Your task to perform on an android device: delete the emails in spam in the gmail app Image 0: 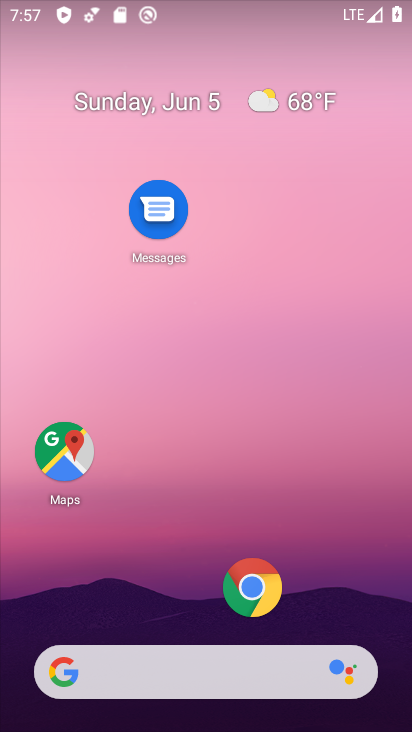
Step 0: press home button
Your task to perform on an android device: delete the emails in spam in the gmail app Image 1: 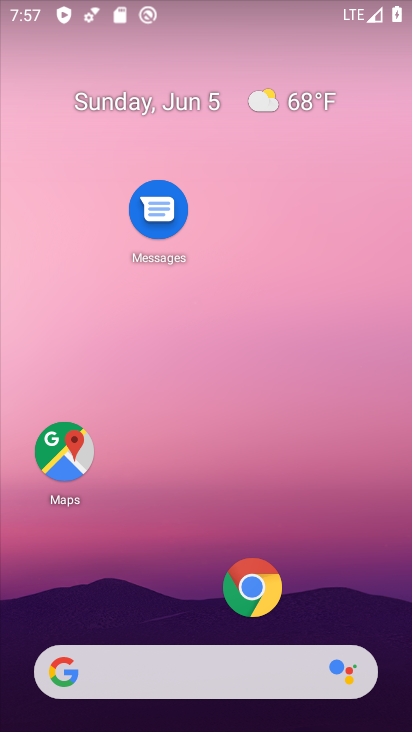
Step 1: drag from (203, 623) to (239, 42)
Your task to perform on an android device: delete the emails in spam in the gmail app Image 2: 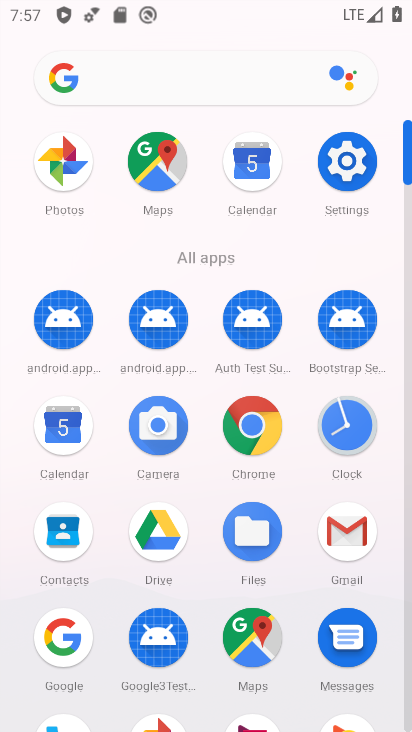
Step 2: click (345, 528)
Your task to perform on an android device: delete the emails in spam in the gmail app Image 3: 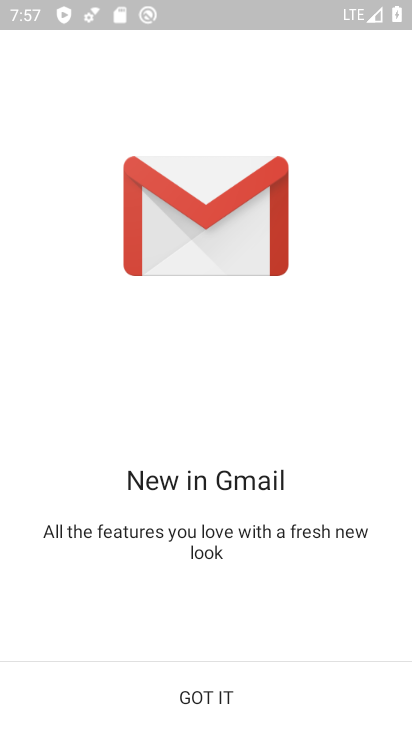
Step 3: click (211, 695)
Your task to perform on an android device: delete the emails in spam in the gmail app Image 4: 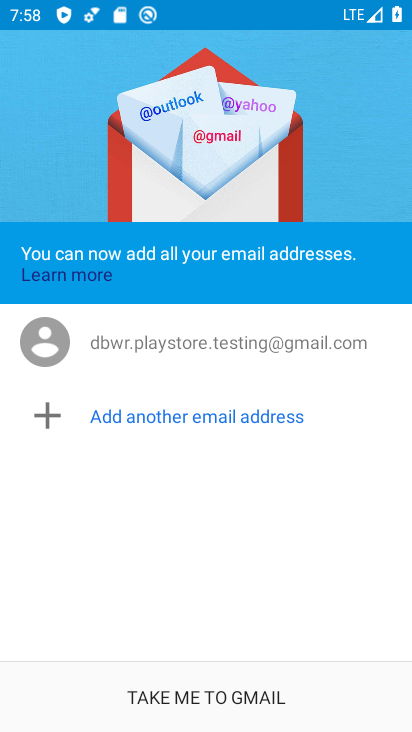
Step 4: click (212, 694)
Your task to perform on an android device: delete the emails in spam in the gmail app Image 5: 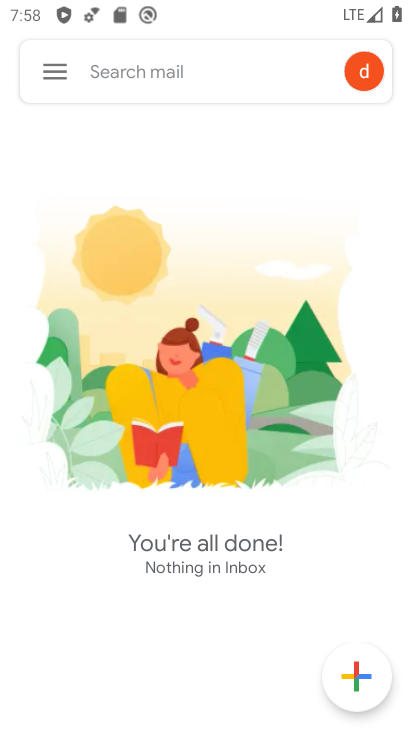
Step 5: click (52, 67)
Your task to perform on an android device: delete the emails in spam in the gmail app Image 6: 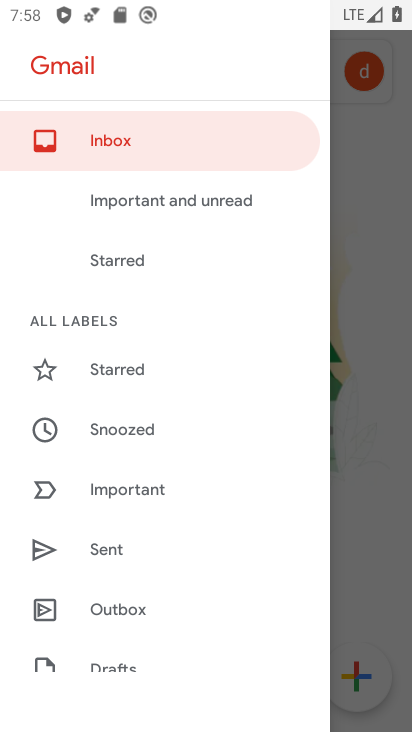
Step 6: drag from (148, 622) to (190, 122)
Your task to perform on an android device: delete the emails in spam in the gmail app Image 7: 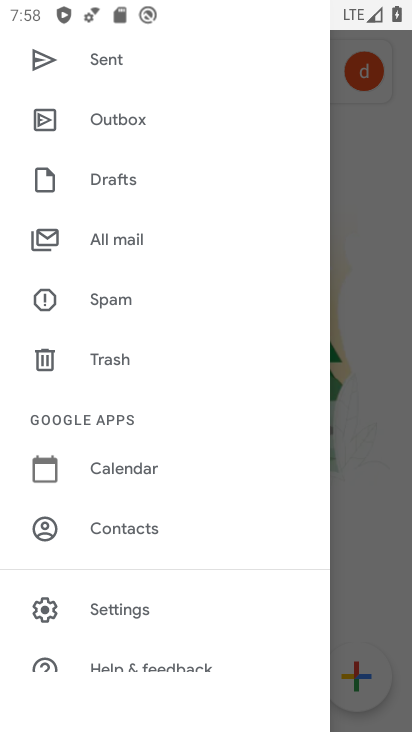
Step 7: click (138, 296)
Your task to perform on an android device: delete the emails in spam in the gmail app Image 8: 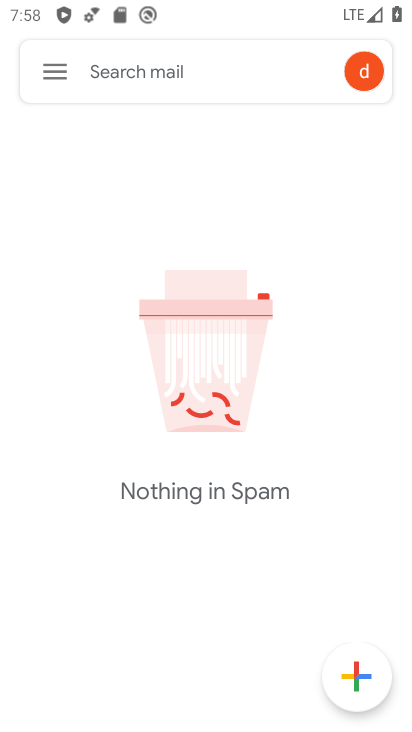
Step 8: task complete